Your task to perform on an android device: Open Google Chrome and click the shortcut for Amazon.com Image 0: 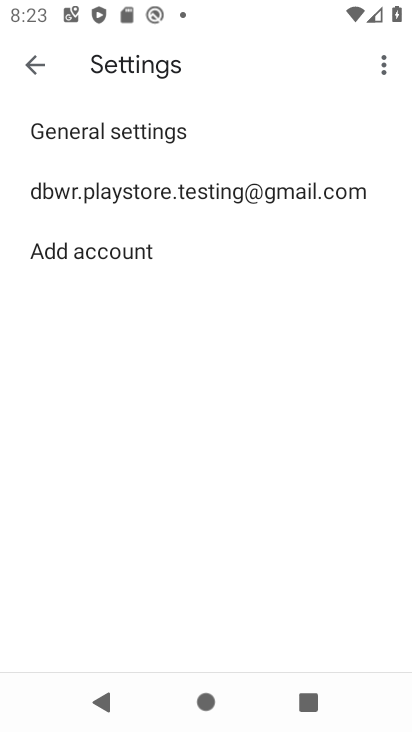
Step 0: press home button
Your task to perform on an android device: Open Google Chrome and click the shortcut for Amazon.com Image 1: 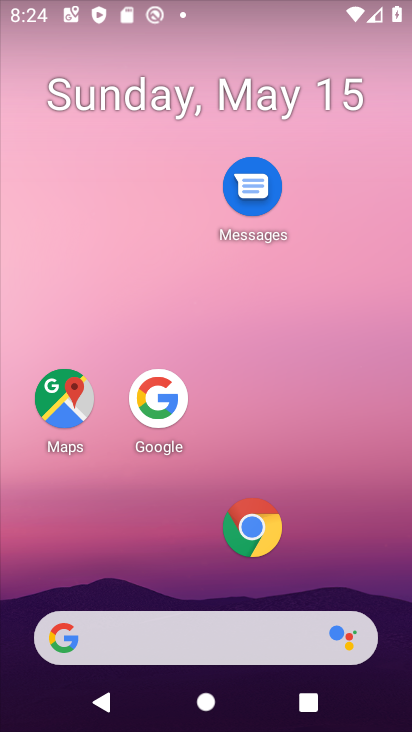
Step 1: click (260, 533)
Your task to perform on an android device: Open Google Chrome and click the shortcut for Amazon.com Image 2: 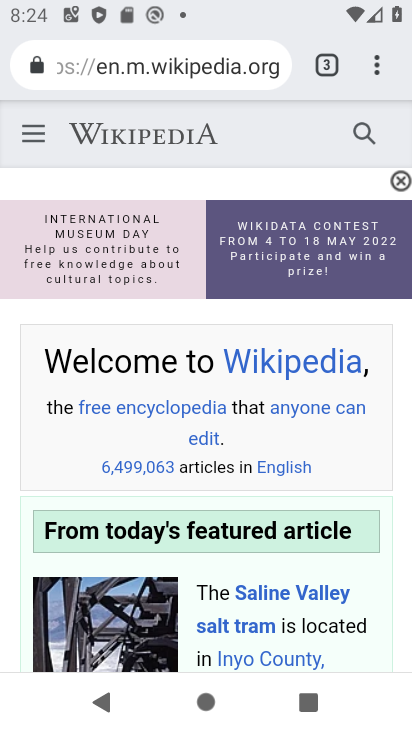
Step 2: drag from (374, 75) to (297, 131)
Your task to perform on an android device: Open Google Chrome and click the shortcut for Amazon.com Image 3: 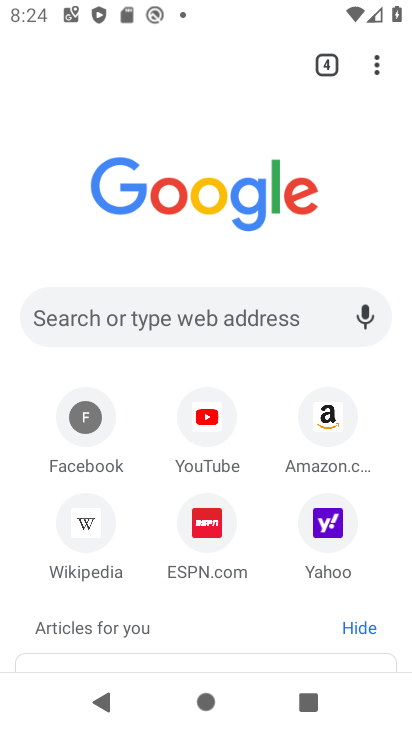
Step 3: click (323, 414)
Your task to perform on an android device: Open Google Chrome and click the shortcut for Amazon.com Image 4: 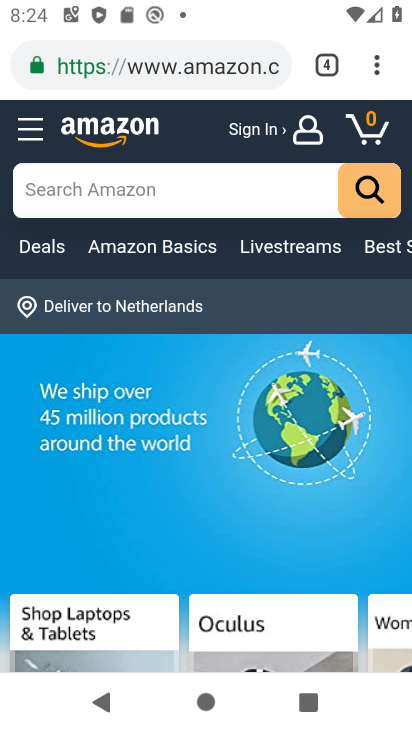
Step 4: task complete